Your task to perform on an android device: turn off smart reply in the gmail app Image 0: 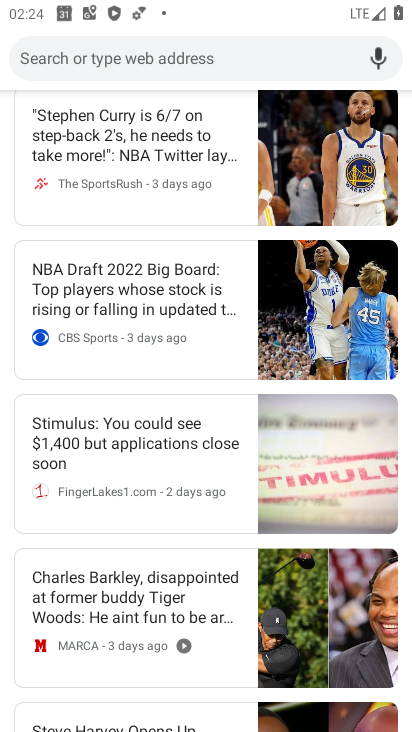
Step 0: press home button
Your task to perform on an android device: turn off smart reply in the gmail app Image 1: 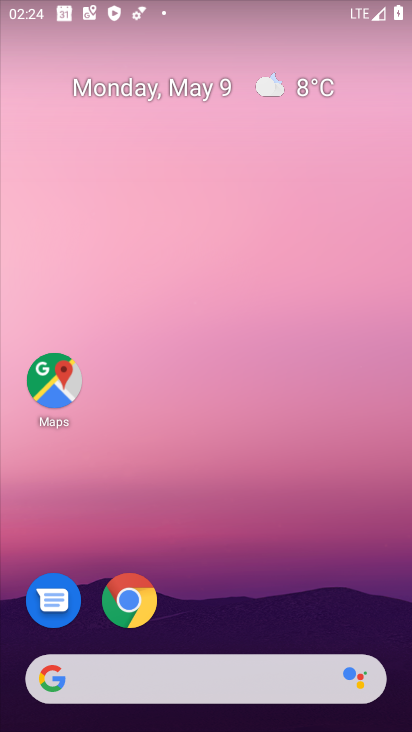
Step 1: drag from (218, 632) to (199, 18)
Your task to perform on an android device: turn off smart reply in the gmail app Image 2: 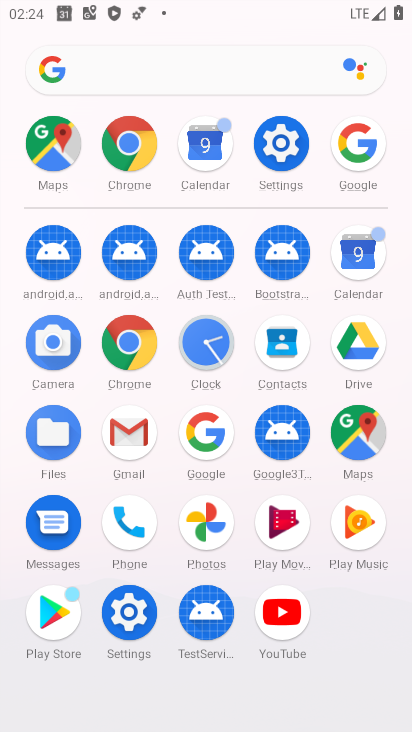
Step 2: click (133, 434)
Your task to perform on an android device: turn off smart reply in the gmail app Image 3: 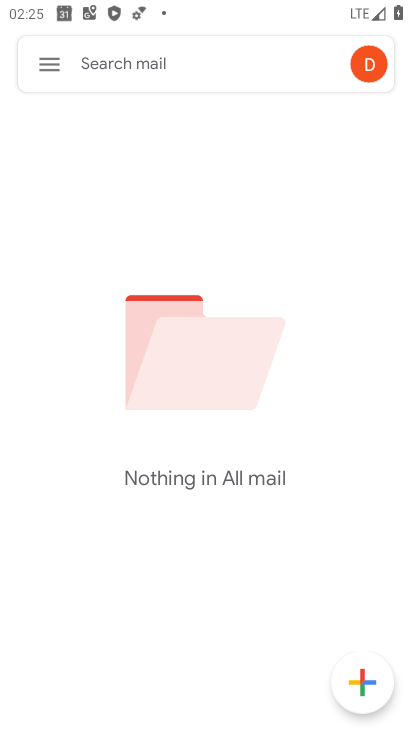
Step 3: click (56, 59)
Your task to perform on an android device: turn off smart reply in the gmail app Image 4: 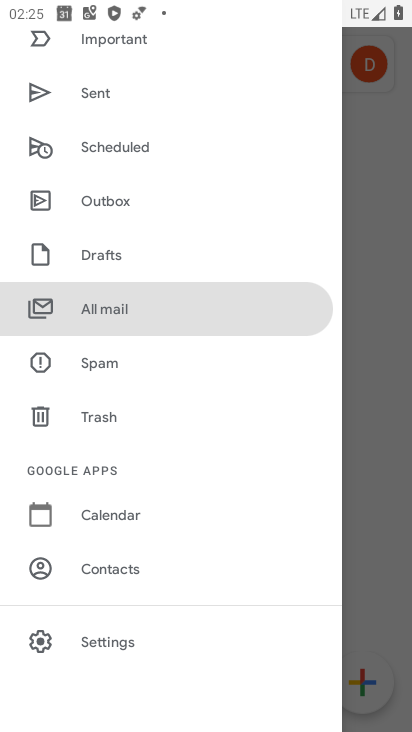
Step 4: click (125, 634)
Your task to perform on an android device: turn off smart reply in the gmail app Image 5: 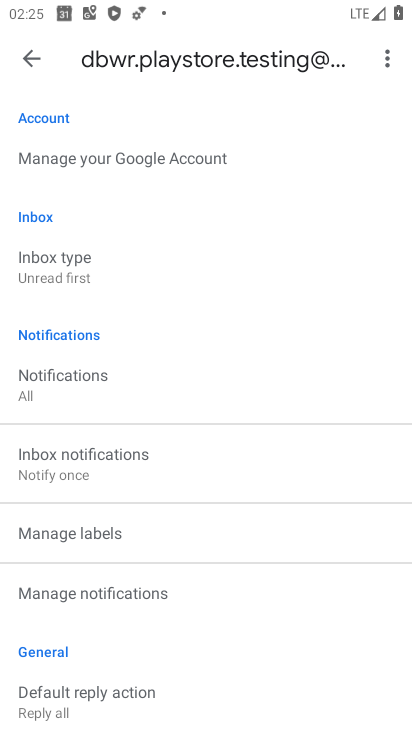
Step 5: drag from (153, 658) to (185, 83)
Your task to perform on an android device: turn off smart reply in the gmail app Image 6: 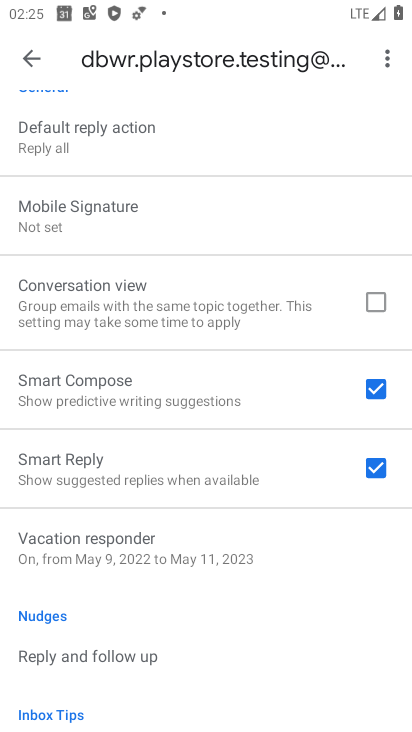
Step 6: click (375, 463)
Your task to perform on an android device: turn off smart reply in the gmail app Image 7: 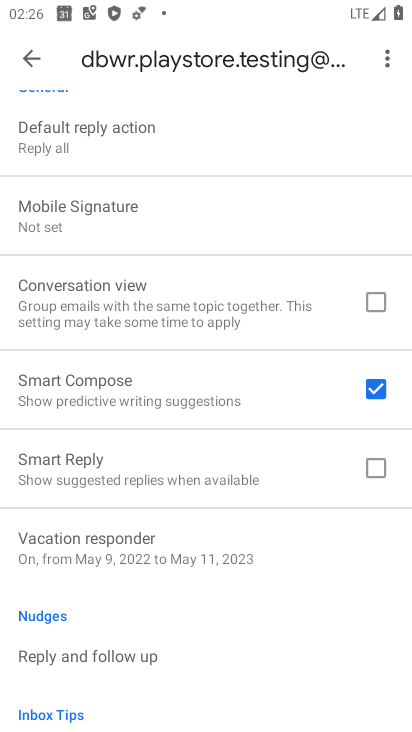
Step 7: task complete